Your task to perform on an android device: clear history in the chrome app Image 0: 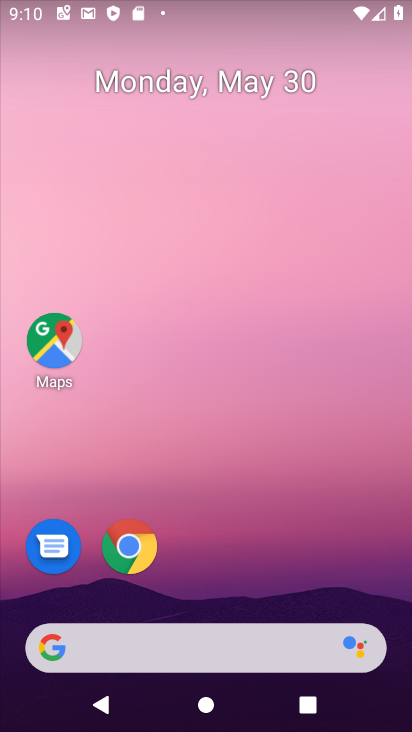
Step 0: drag from (281, 388) to (281, 181)
Your task to perform on an android device: clear history in the chrome app Image 1: 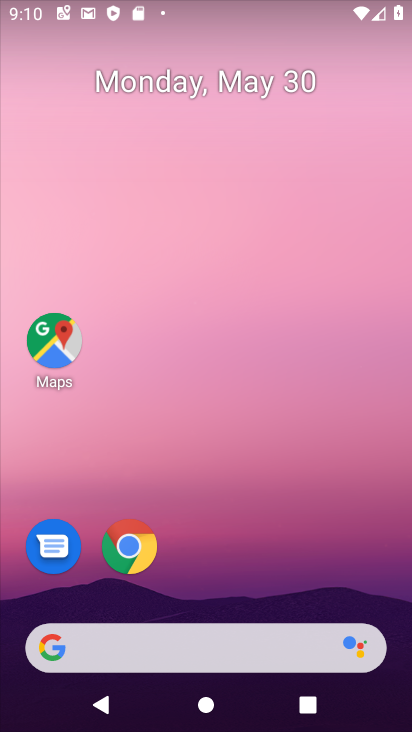
Step 1: drag from (305, 576) to (315, 272)
Your task to perform on an android device: clear history in the chrome app Image 2: 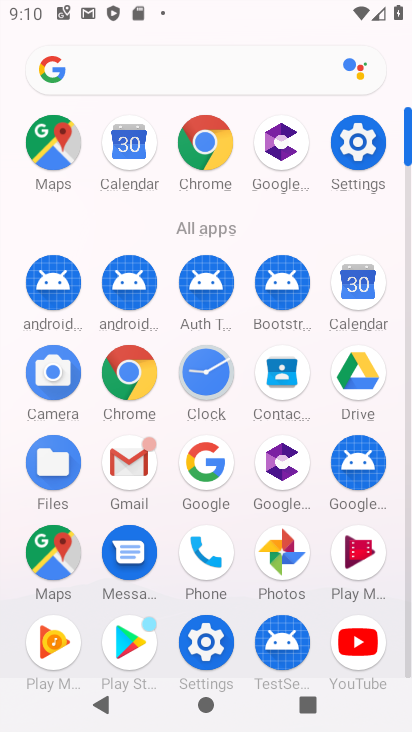
Step 2: click (136, 376)
Your task to perform on an android device: clear history in the chrome app Image 3: 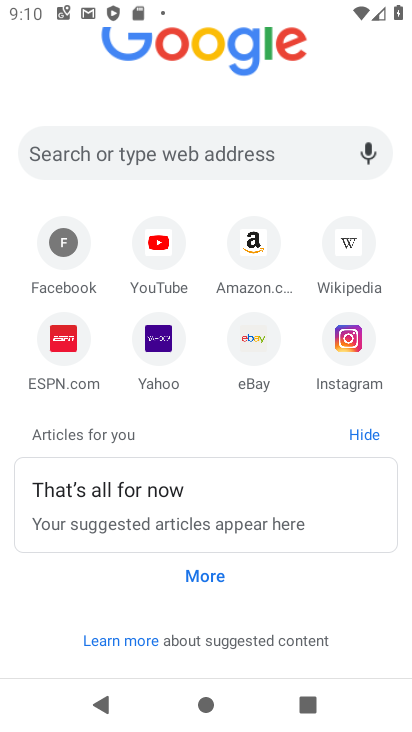
Step 3: drag from (268, 228) to (248, 601)
Your task to perform on an android device: clear history in the chrome app Image 4: 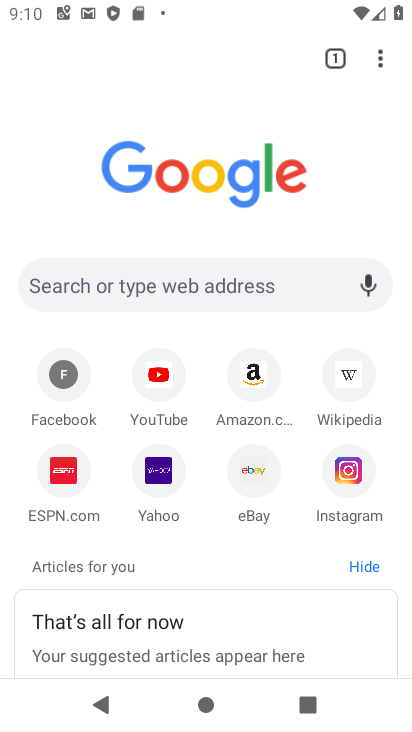
Step 4: drag from (373, 54) to (180, 324)
Your task to perform on an android device: clear history in the chrome app Image 5: 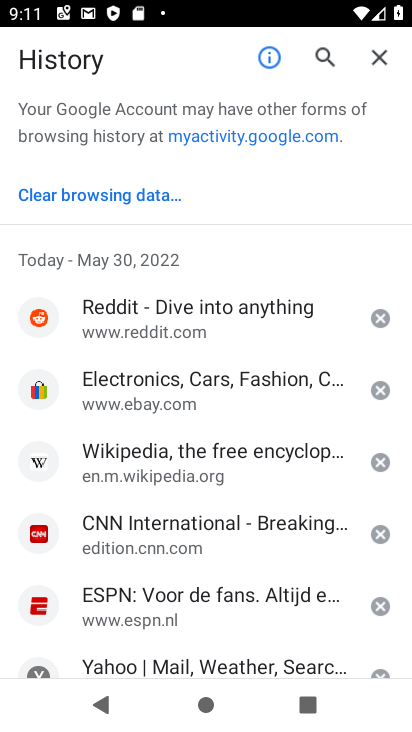
Step 5: click (117, 197)
Your task to perform on an android device: clear history in the chrome app Image 6: 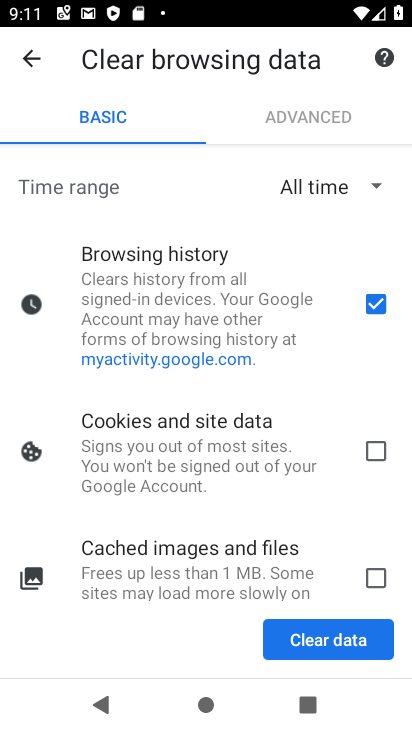
Step 6: click (378, 441)
Your task to perform on an android device: clear history in the chrome app Image 7: 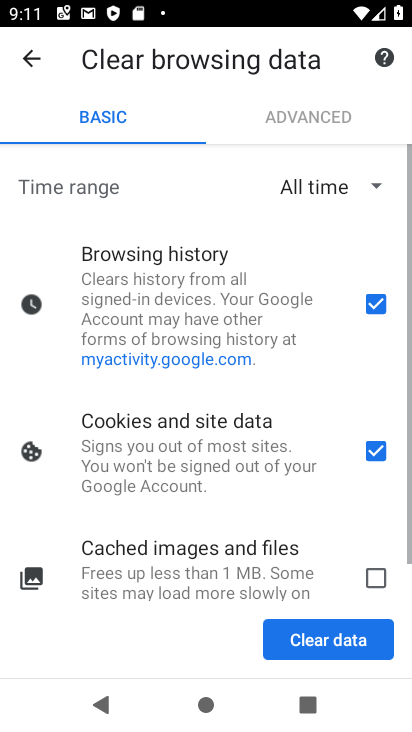
Step 7: click (375, 582)
Your task to perform on an android device: clear history in the chrome app Image 8: 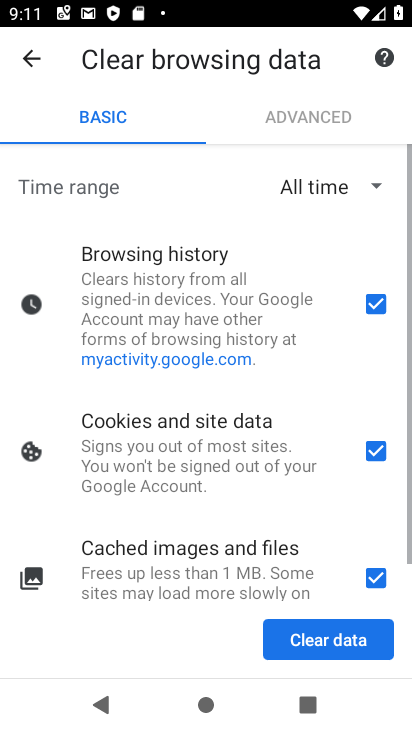
Step 8: click (329, 650)
Your task to perform on an android device: clear history in the chrome app Image 9: 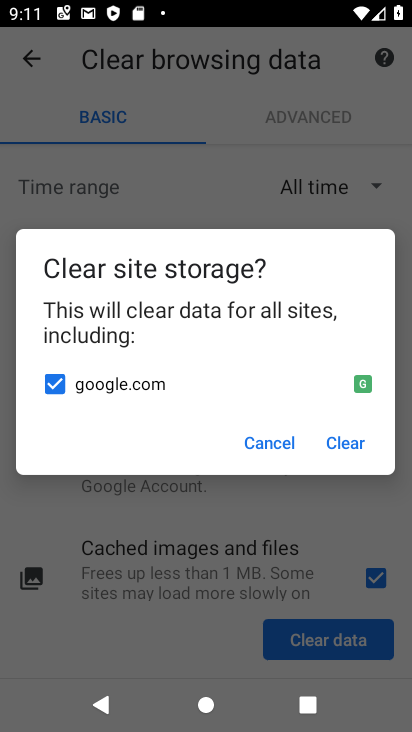
Step 9: click (361, 441)
Your task to perform on an android device: clear history in the chrome app Image 10: 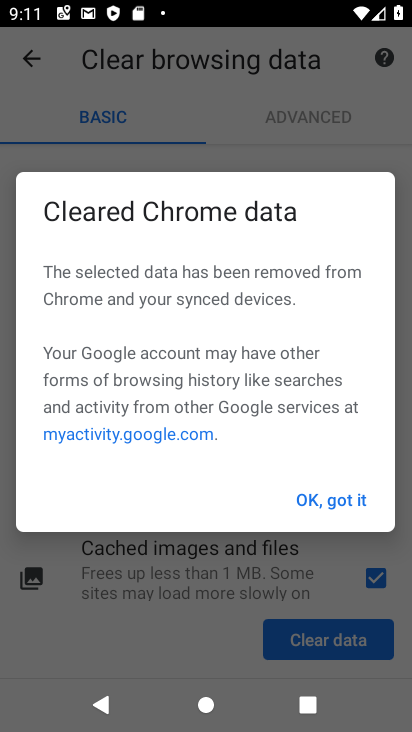
Step 10: click (341, 497)
Your task to perform on an android device: clear history in the chrome app Image 11: 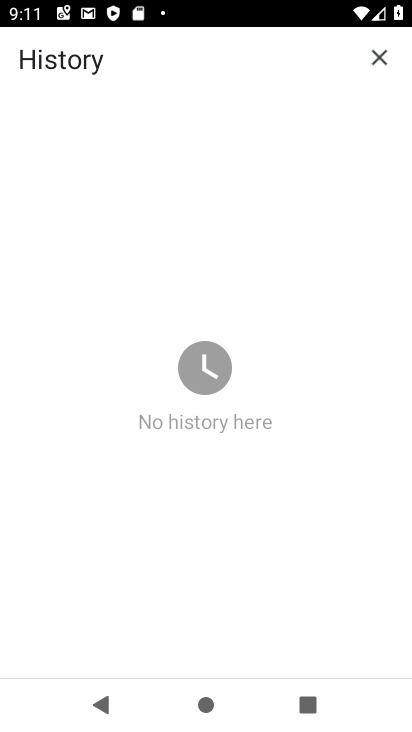
Step 11: task complete